Your task to perform on an android device: manage bookmarks in the chrome app Image 0: 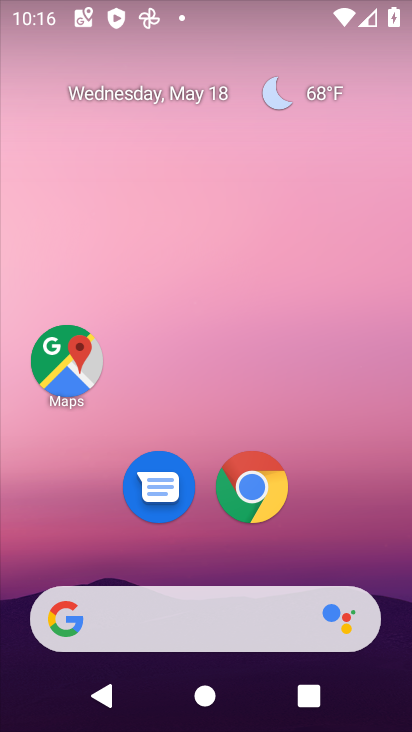
Step 0: drag from (368, 518) to (328, 193)
Your task to perform on an android device: manage bookmarks in the chrome app Image 1: 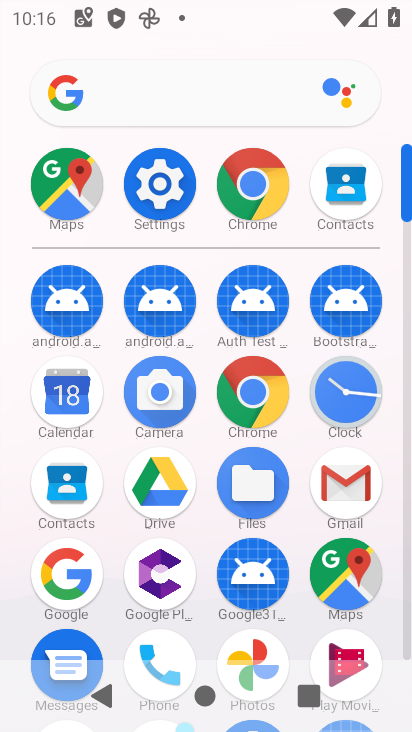
Step 1: click (259, 413)
Your task to perform on an android device: manage bookmarks in the chrome app Image 2: 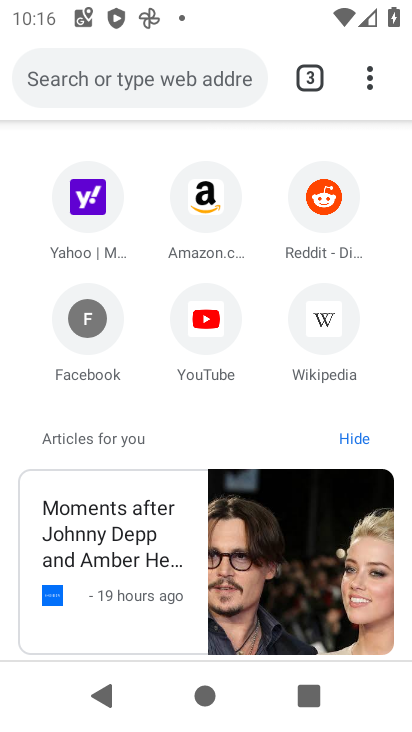
Step 2: task complete